Your task to perform on an android device: Open Google Chrome and open the bookmarks view Image 0: 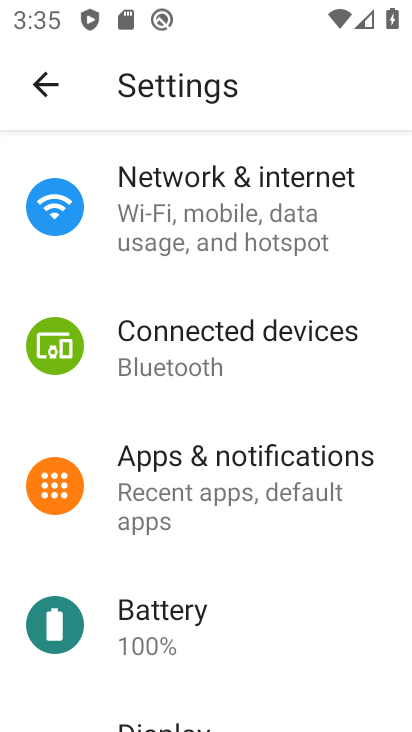
Step 0: press back button
Your task to perform on an android device: Open Google Chrome and open the bookmarks view Image 1: 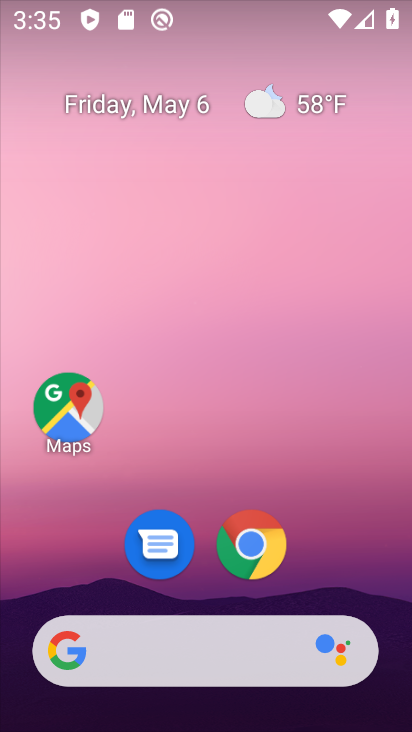
Step 1: click (254, 558)
Your task to perform on an android device: Open Google Chrome and open the bookmarks view Image 2: 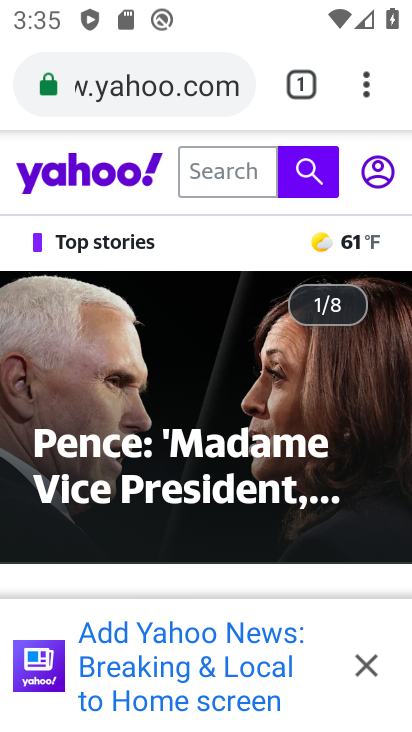
Step 2: task complete